Your task to perform on an android device: make emails show in primary in the gmail app Image 0: 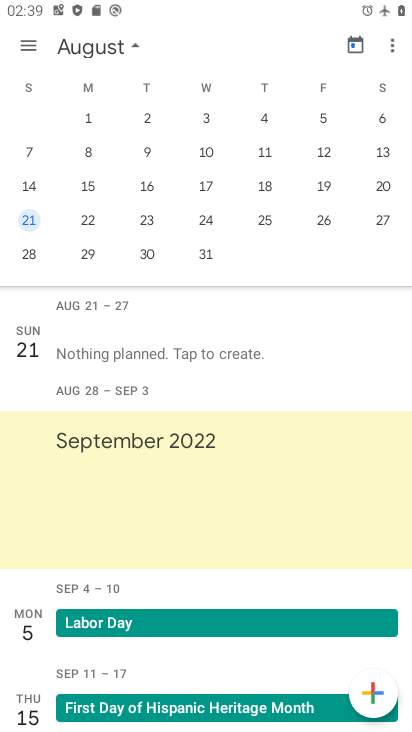
Step 0: press home button
Your task to perform on an android device: make emails show in primary in the gmail app Image 1: 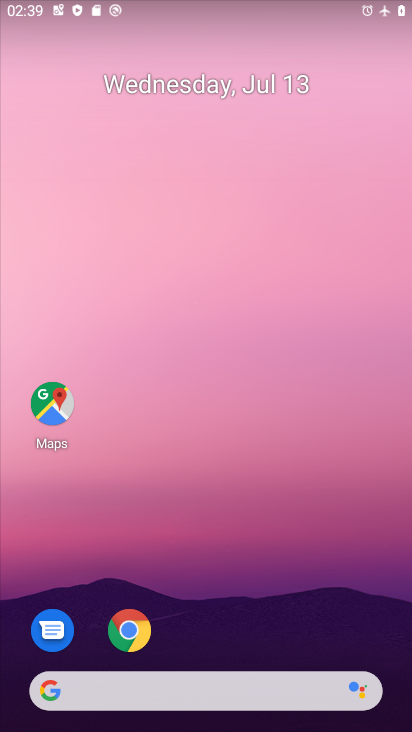
Step 1: drag from (239, 640) to (204, 355)
Your task to perform on an android device: make emails show in primary in the gmail app Image 2: 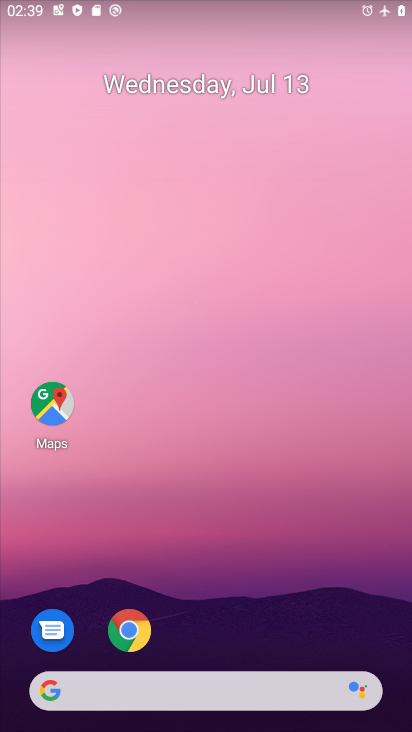
Step 2: drag from (226, 631) to (215, 138)
Your task to perform on an android device: make emails show in primary in the gmail app Image 3: 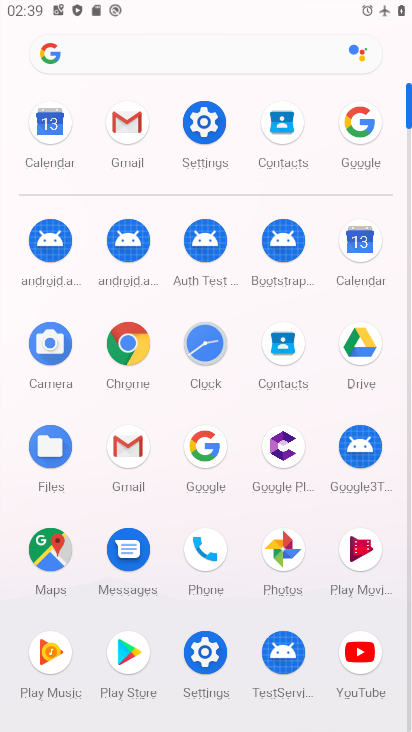
Step 3: click (159, 448)
Your task to perform on an android device: make emails show in primary in the gmail app Image 4: 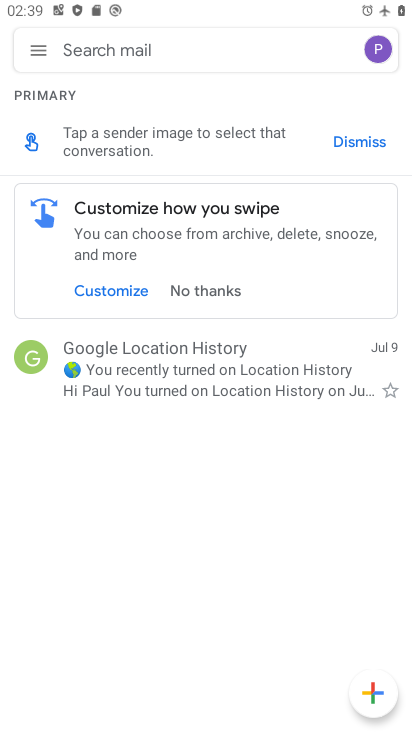
Step 4: click (33, 52)
Your task to perform on an android device: make emails show in primary in the gmail app Image 5: 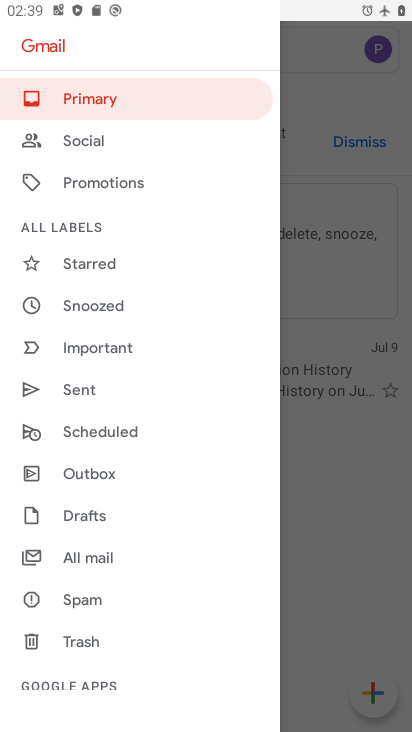
Step 5: drag from (106, 672) to (134, 337)
Your task to perform on an android device: make emails show in primary in the gmail app Image 6: 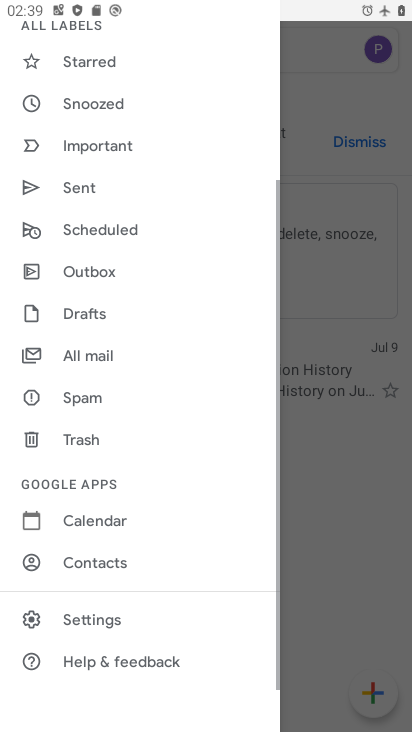
Step 6: click (106, 616)
Your task to perform on an android device: make emails show in primary in the gmail app Image 7: 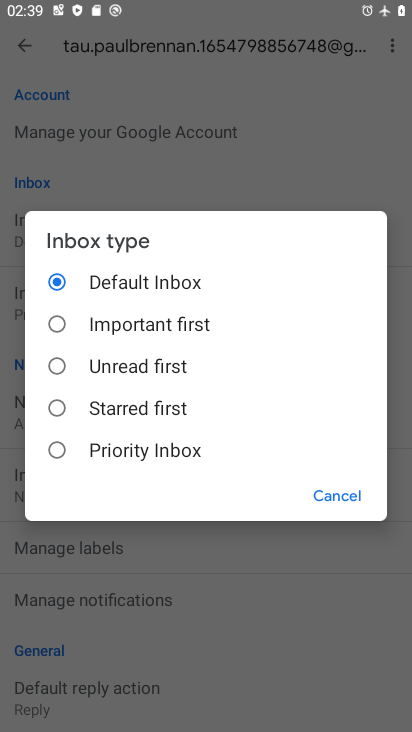
Step 7: task complete